Your task to perform on an android device: open chrome and create a bookmark for the current page Image 0: 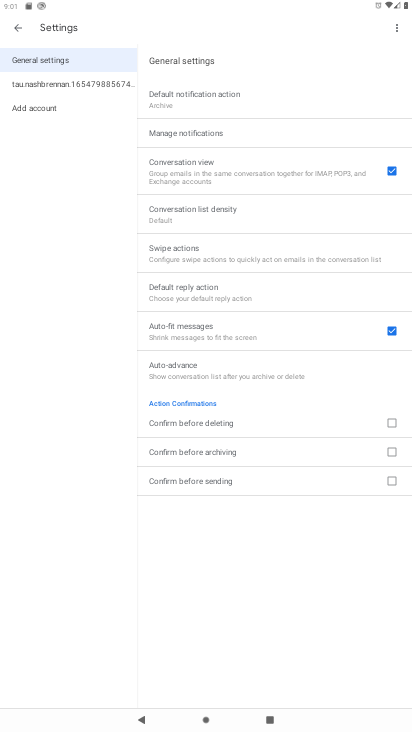
Step 0: press home button
Your task to perform on an android device: open chrome and create a bookmark for the current page Image 1: 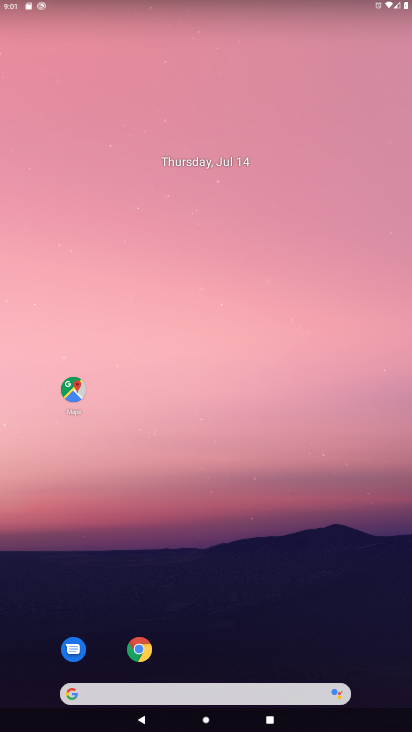
Step 1: click (141, 653)
Your task to perform on an android device: open chrome and create a bookmark for the current page Image 2: 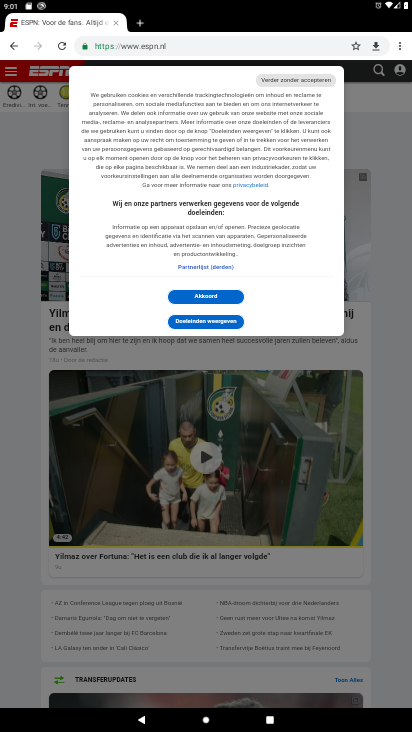
Step 2: click (395, 48)
Your task to perform on an android device: open chrome and create a bookmark for the current page Image 3: 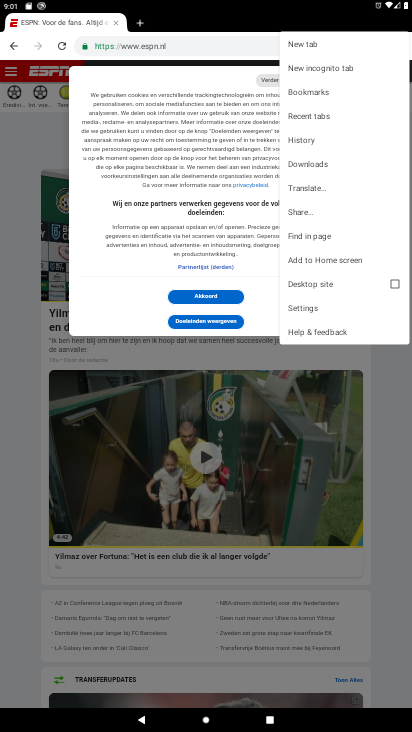
Step 3: click (380, 374)
Your task to perform on an android device: open chrome and create a bookmark for the current page Image 4: 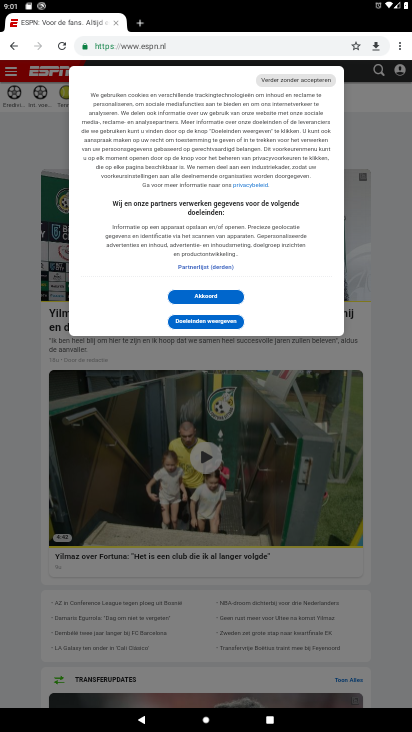
Step 4: click (353, 50)
Your task to perform on an android device: open chrome and create a bookmark for the current page Image 5: 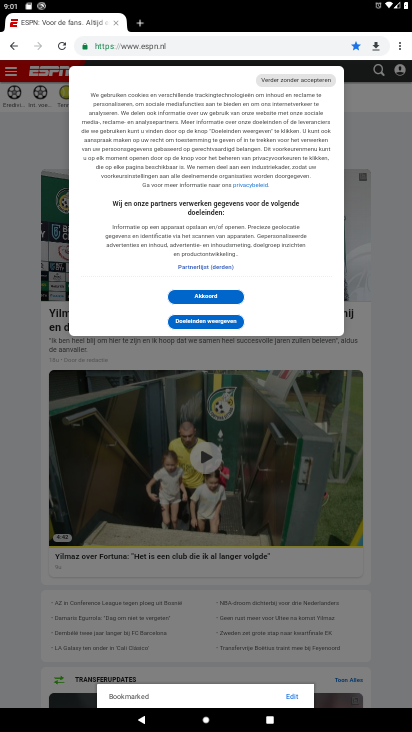
Step 5: task complete